Your task to perform on an android device: What's on my calendar today? Image 0: 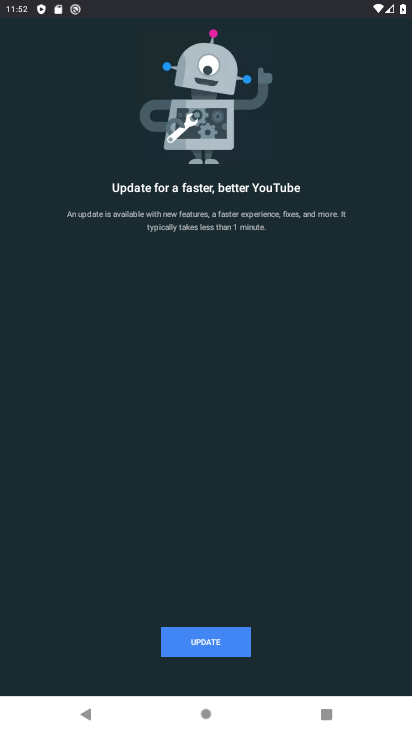
Step 0: press home button
Your task to perform on an android device: What's on my calendar today? Image 1: 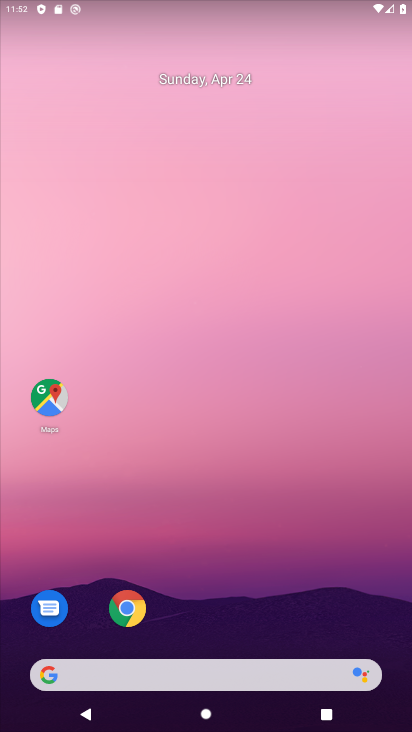
Step 1: drag from (223, 723) to (238, 102)
Your task to perform on an android device: What's on my calendar today? Image 2: 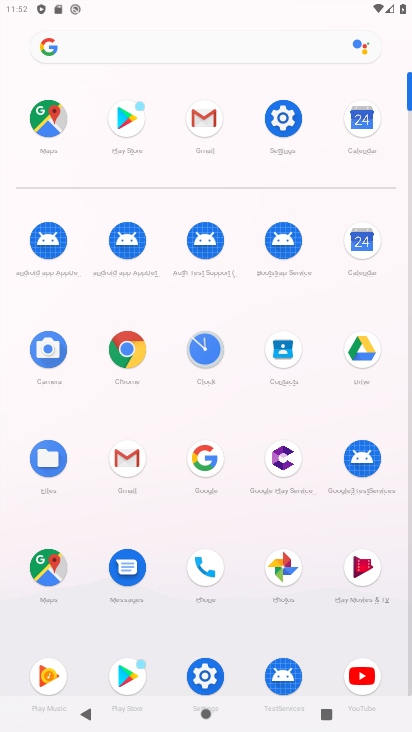
Step 2: click (362, 243)
Your task to perform on an android device: What's on my calendar today? Image 3: 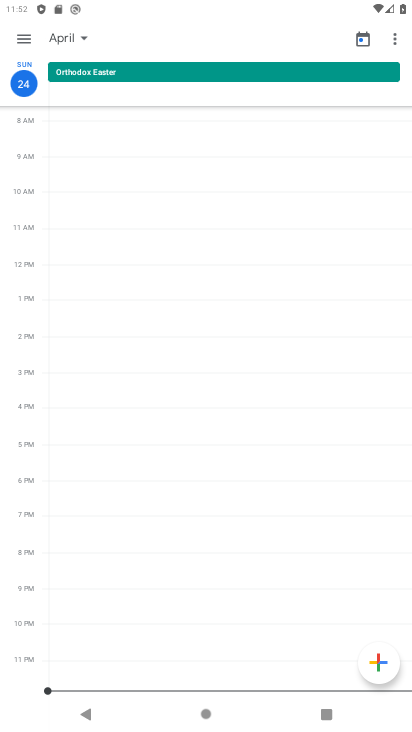
Step 3: click (65, 37)
Your task to perform on an android device: What's on my calendar today? Image 4: 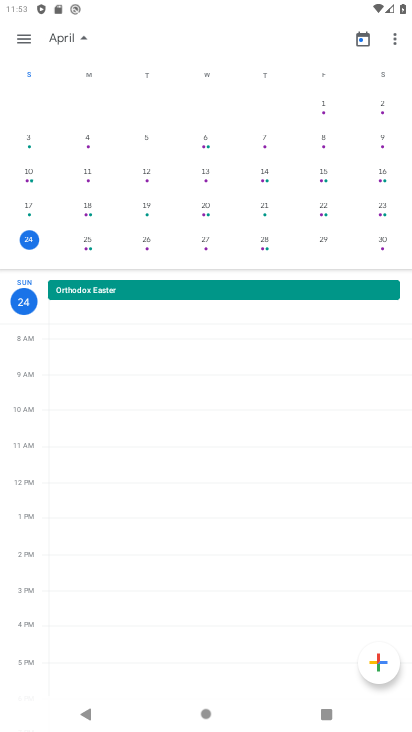
Step 4: click (26, 239)
Your task to perform on an android device: What's on my calendar today? Image 5: 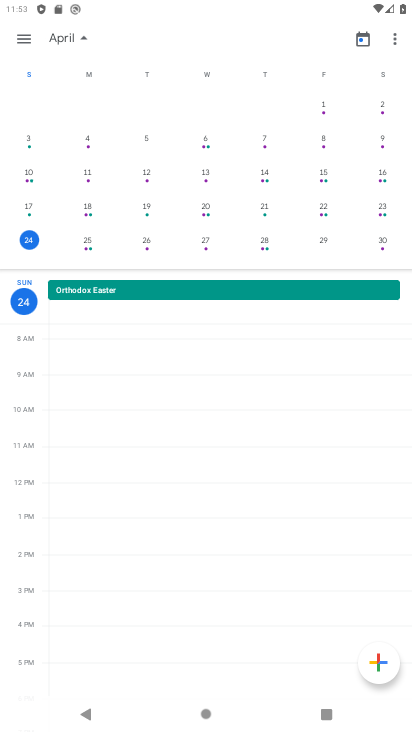
Step 5: task complete